Your task to perform on an android device: change the clock display to digital Image 0: 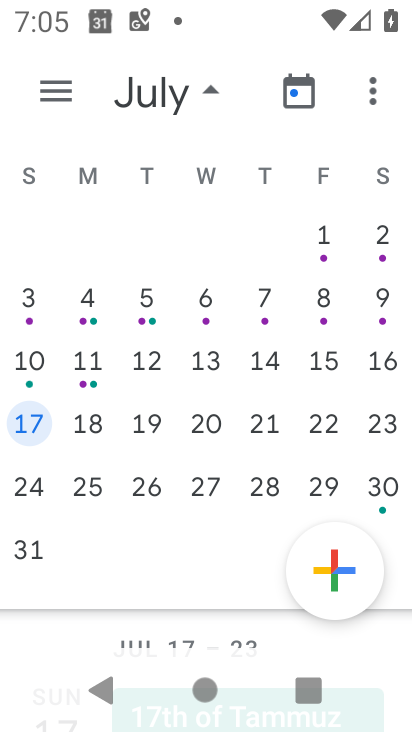
Step 0: press home button
Your task to perform on an android device: change the clock display to digital Image 1: 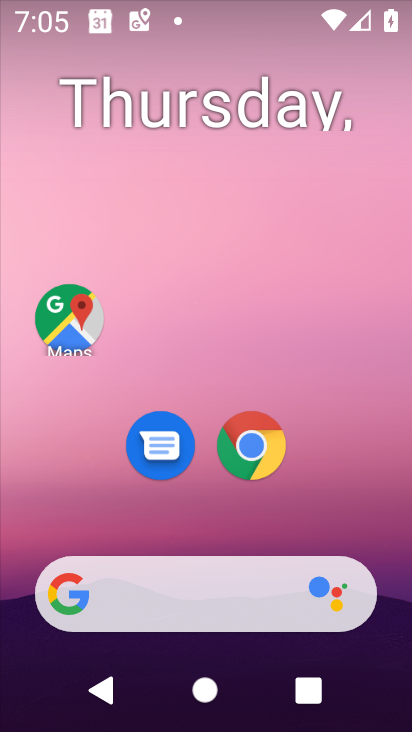
Step 1: drag from (391, 641) to (350, 11)
Your task to perform on an android device: change the clock display to digital Image 2: 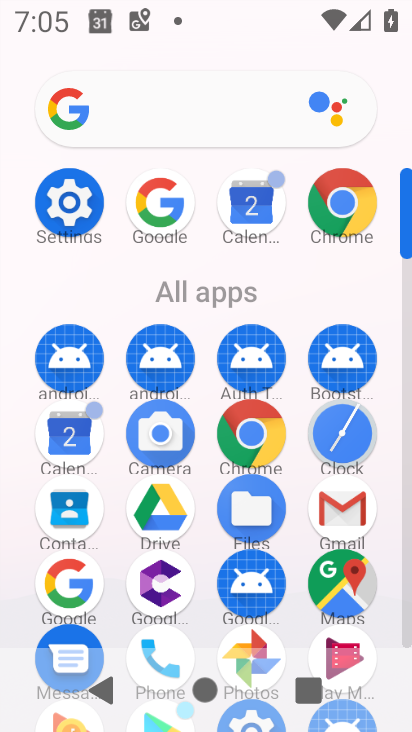
Step 2: click (326, 413)
Your task to perform on an android device: change the clock display to digital Image 3: 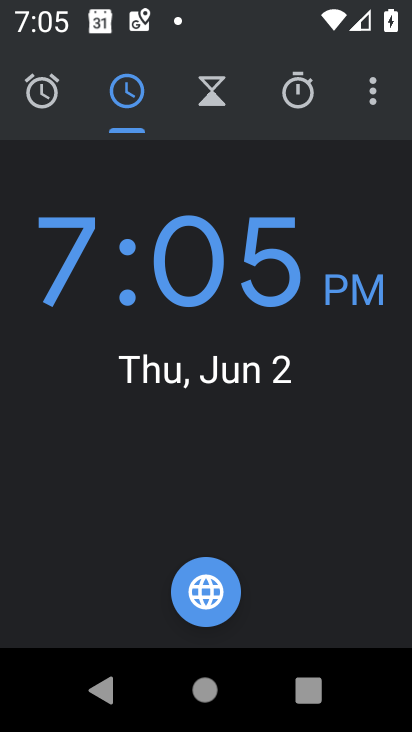
Step 3: click (379, 95)
Your task to perform on an android device: change the clock display to digital Image 4: 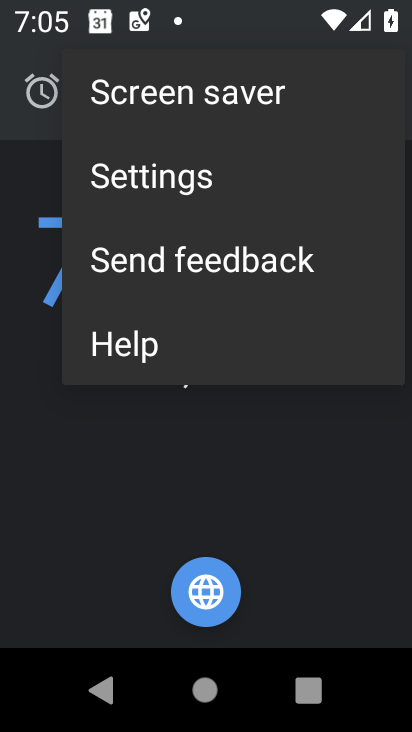
Step 4: click (220, 190)
Your task to perform on an android device: change the clock display to digital Image 5: 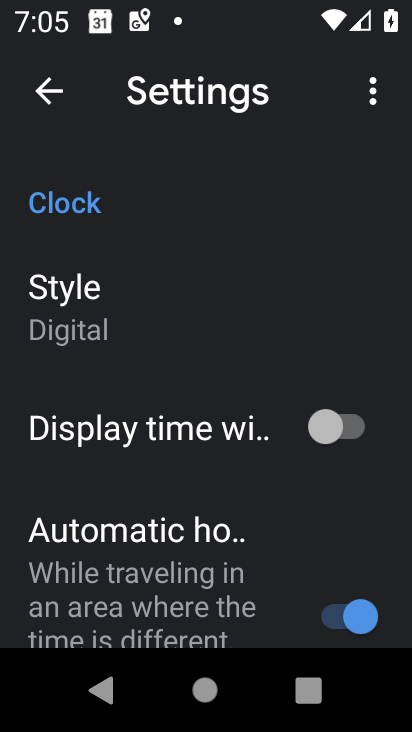
Step 5: click (131, 301)
Your task to perform on an android device: change the clock display to digital Image 6: 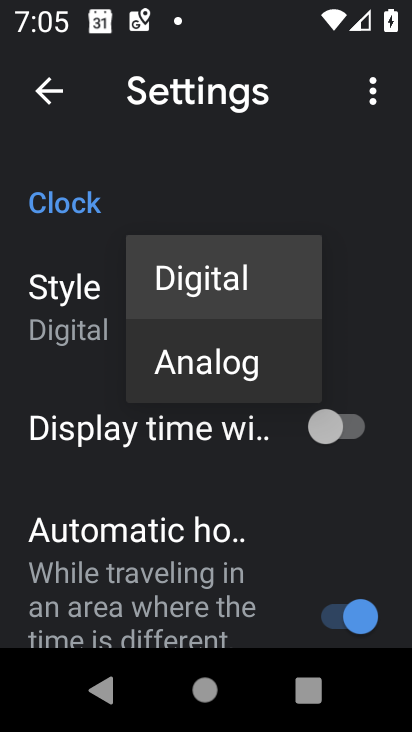
Step 6: click (204, 266)
Your task to perform on an android device: change the clock display to digital Image 7: 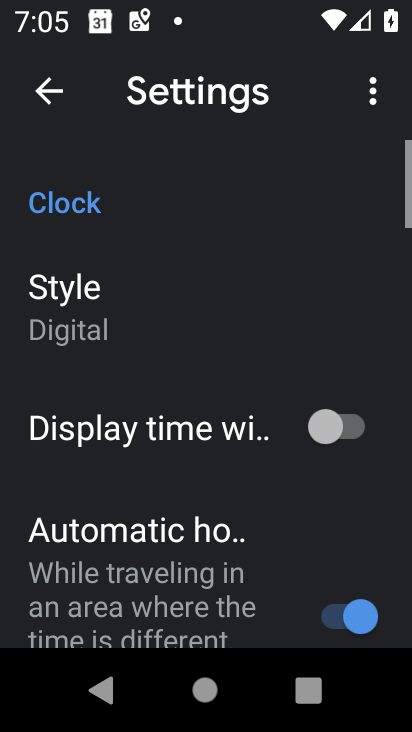
Step 7: task complete